Your task to perform on an android device: Open network settings Image 0: 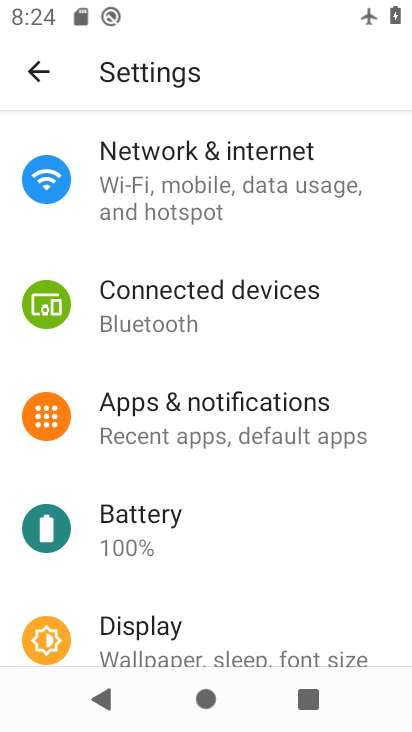
Step 0: click (159, 186)
Your task to perform on an android device: Open network settings Image 1: 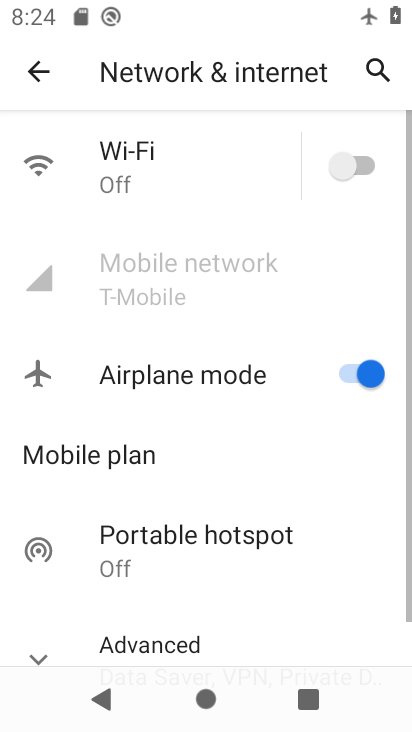
Step 1: task complete